Your task to perform on an android device: Open Chrome and go to the settings page Image 0: 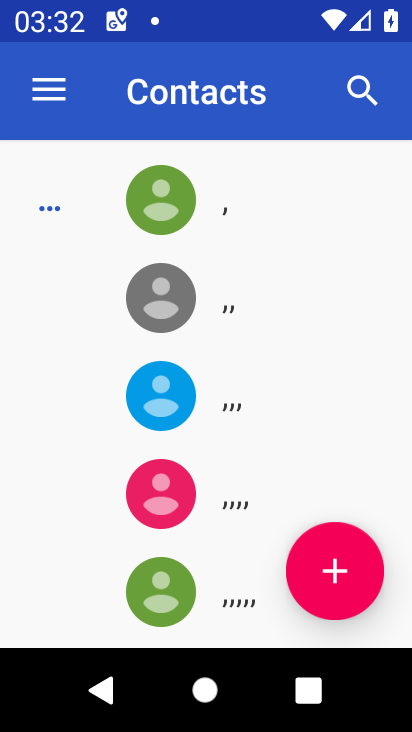
Step 0: press home button
Your task to perform on an android device: Open Chrome and go to the settings page Image 1: 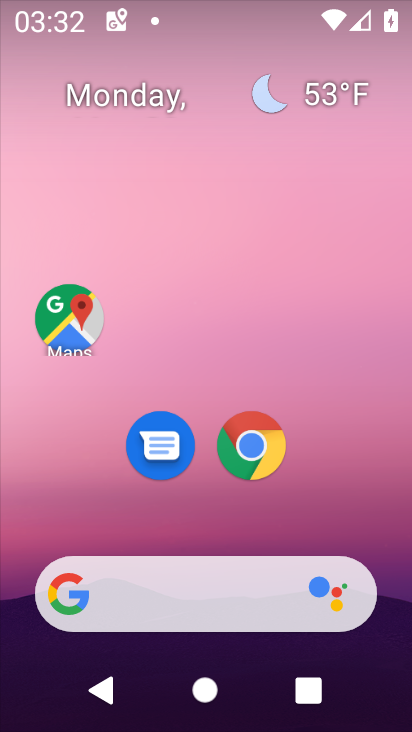
Step 1: click (239, 431)
Your task to perform on an android device: Open Chrome and go to the settings page Image 2: 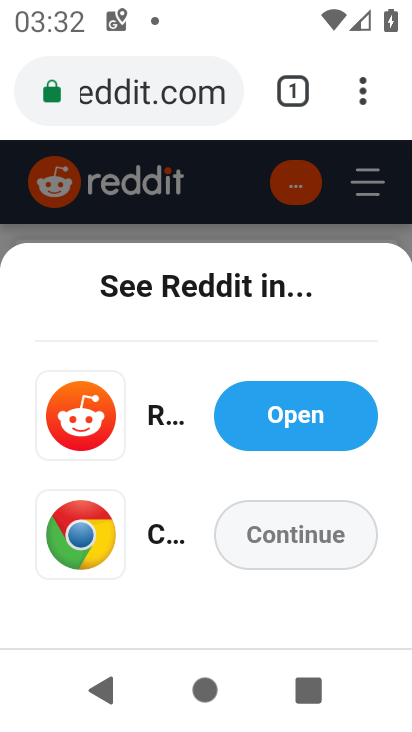
Step 2: click (365, 106)
Your task to perform on an android device: Open Chrome and go to the settings page Image 3: 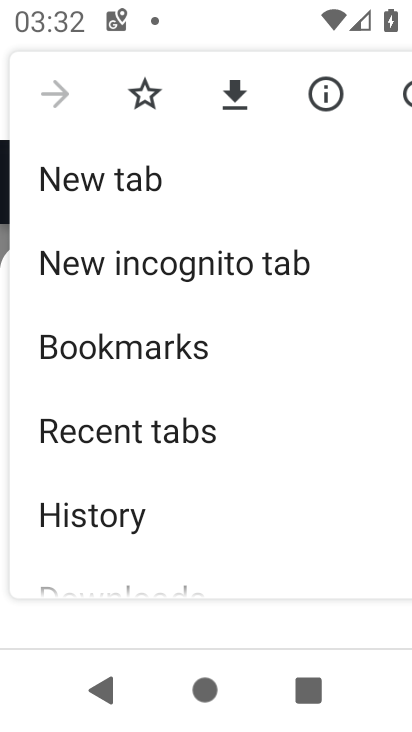
Step 3: drag from (119, 501) to (158, 70)
Your task to perform on an android device: Open Chrome and go to the settings page Image 4: 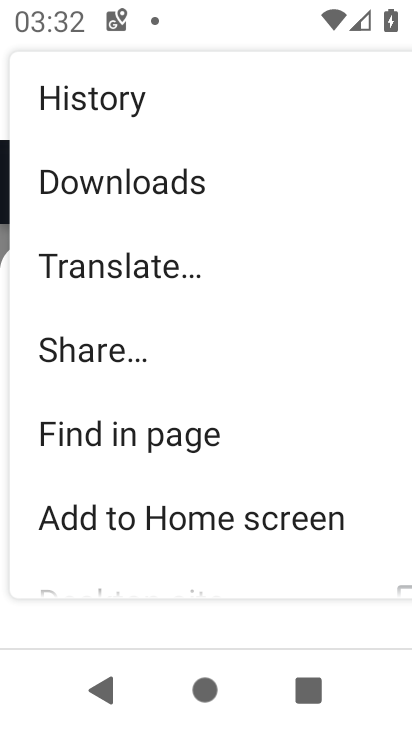
Step 4: drag from (127, 502) to (167, 44)
Your task to perform on an android device: Open Chrome and go to the settings page Image 5: 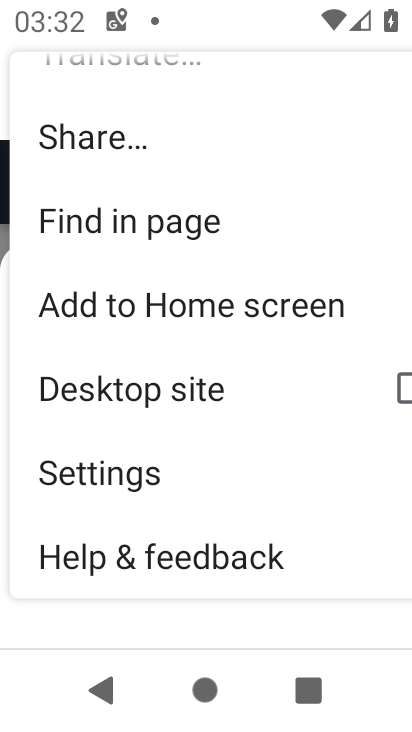
Step 5: click (88, 478)
Your task to perform on an android device: Open Chrome and go to the settings page Image 6: 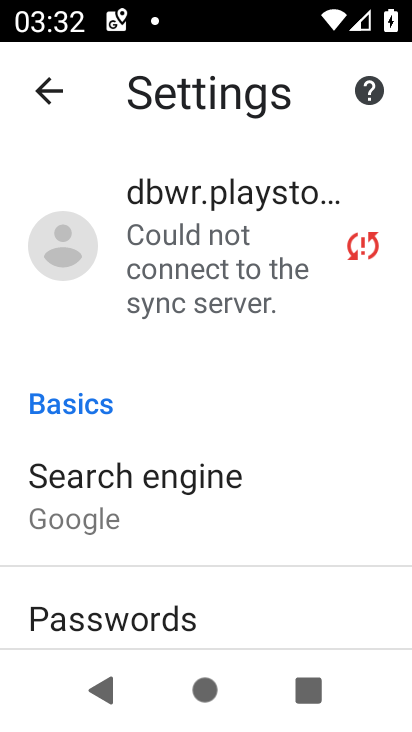
Step 6: task complete